Your task to perform on an android device: turn on the 12-hour format for clock Image 0: 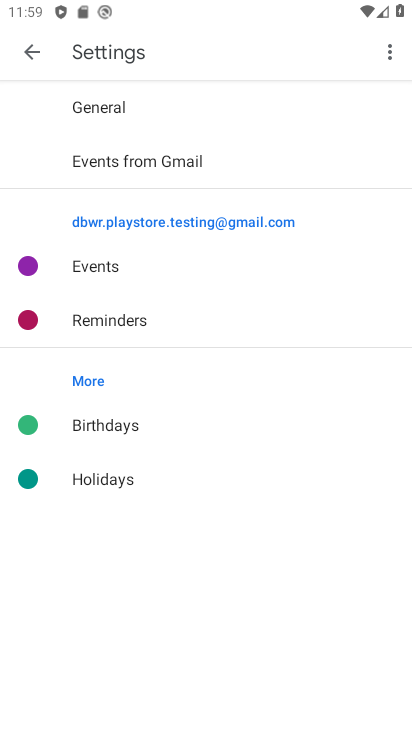
Step 0: press home button
Your task to perform on an android device: turn on the 12-hour format for clock Image 1: 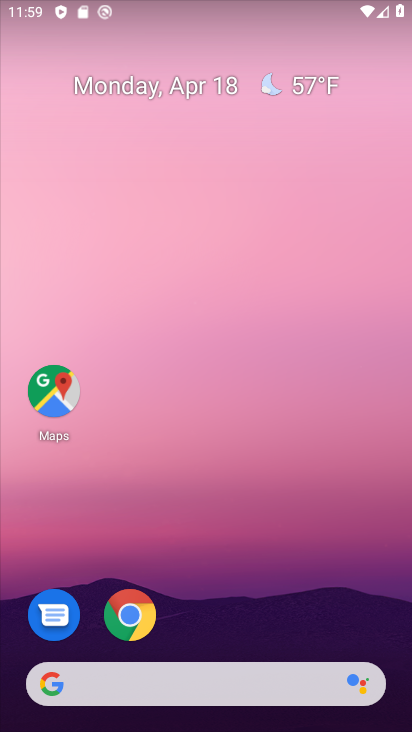
Step 1: drag from (226, 495) to (223, 198)
Your task to perform on an android device: turn on the 12-hour format for clock Image 2: 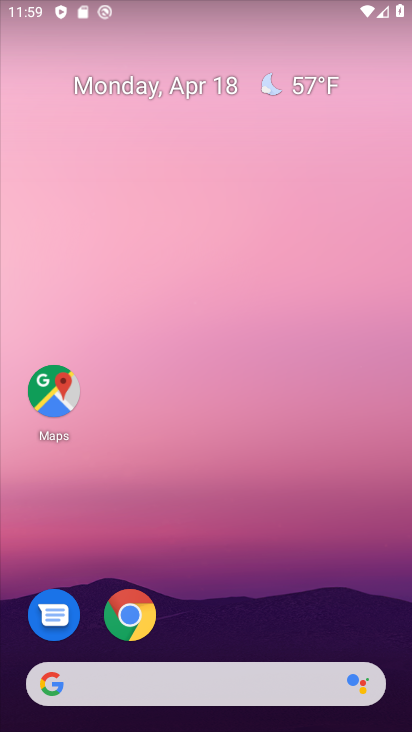
Step 2: drag from (245, 626) to (249, 187)
Your task to perform on an android device: turn on the 12-hour format for clock Image 3: 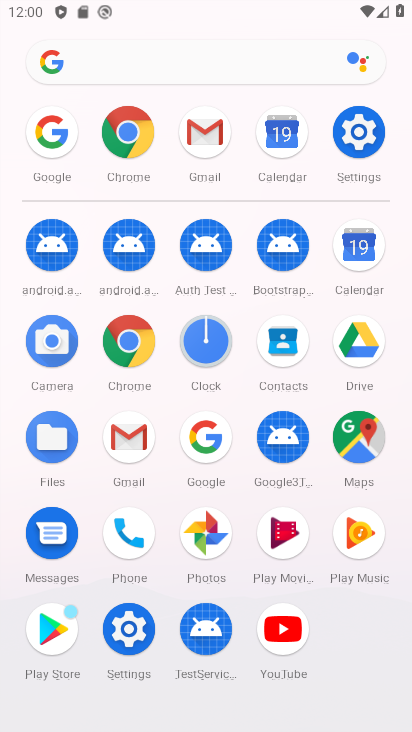
Step 3: click (195, 350)
Your task to perform on an android device: turn on the 12-hour format for clock Image 4: 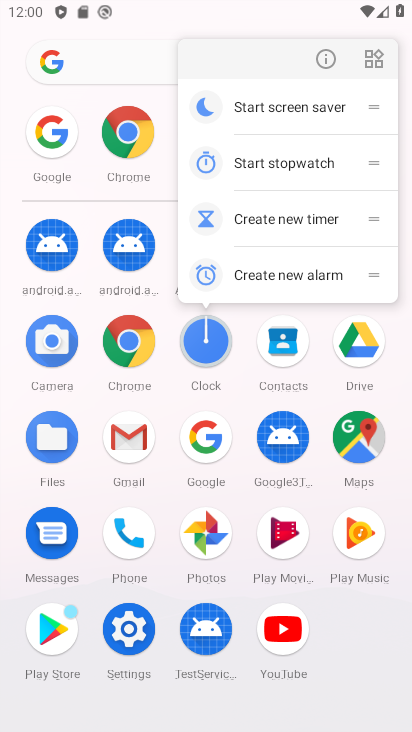
Step 4: click (218, 340)
Your task to perform on an android device: turn on the 12-hour format for clock Image 5: 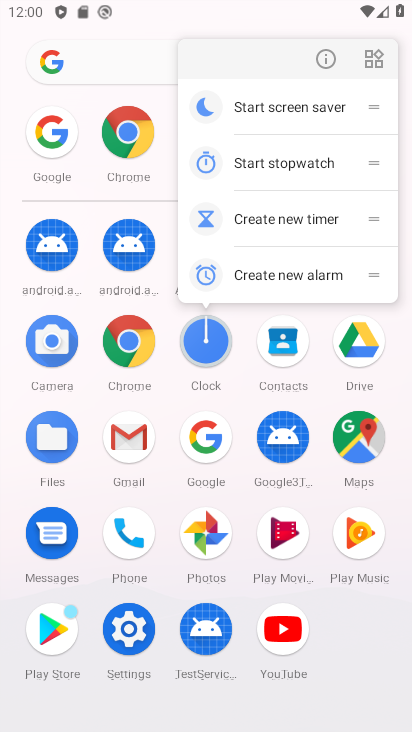
Step 5: click (218, 340)
Your task to perform on an android device: turn on the 12-hour format for clock Image 6: 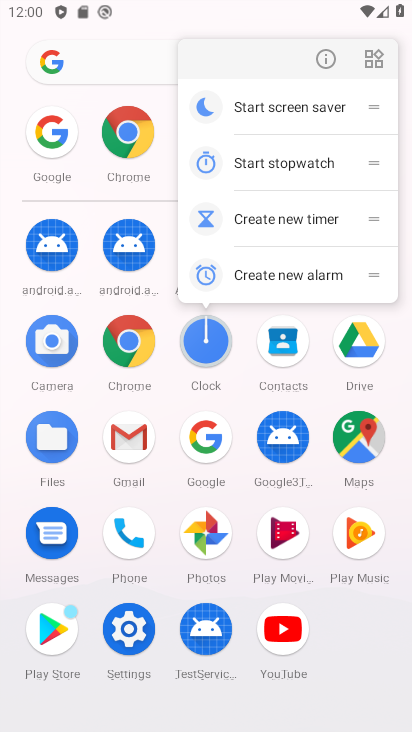
Step 6: click (218, 340)
Your task to perform on an android device: turn on the 12-hour format for clock Image 7: 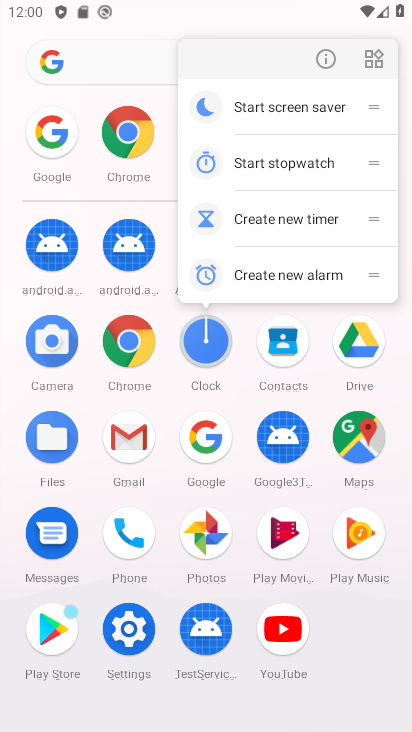
Step 7: click (217, 339)
Your task to perform on an android device: turn on the 12-hour format for clock Image 8: 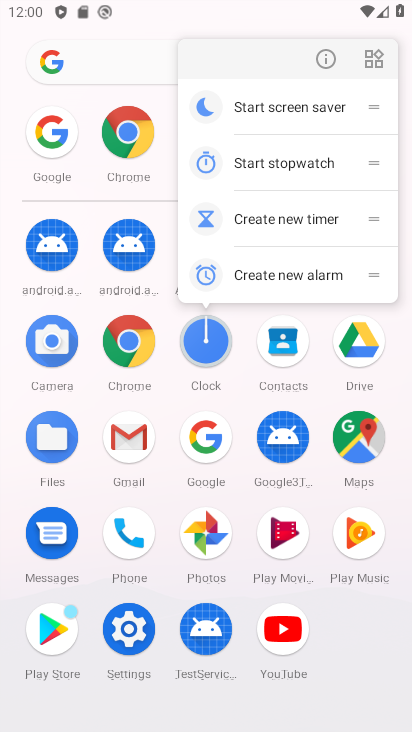
Step 8: click (213, 342)
Your task to perform on an android device: turn on the 12-hour format for clock Image 9: 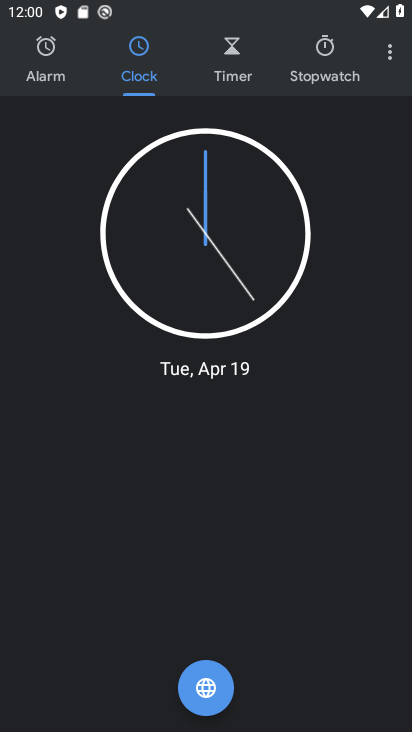
Step 9: click (390, 49)
Your task to perform on an android device: turn on the 12-hour format for clock Image 10: 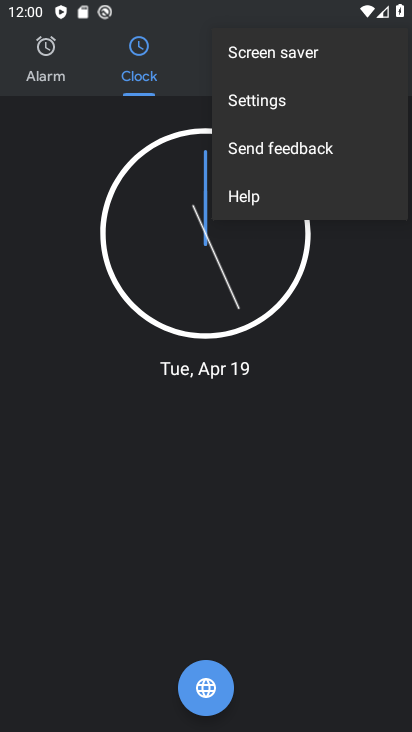
Step 10: click (303, 99)
Your task to perform on an android device: turn on the 12-hour format for clock Image 11: 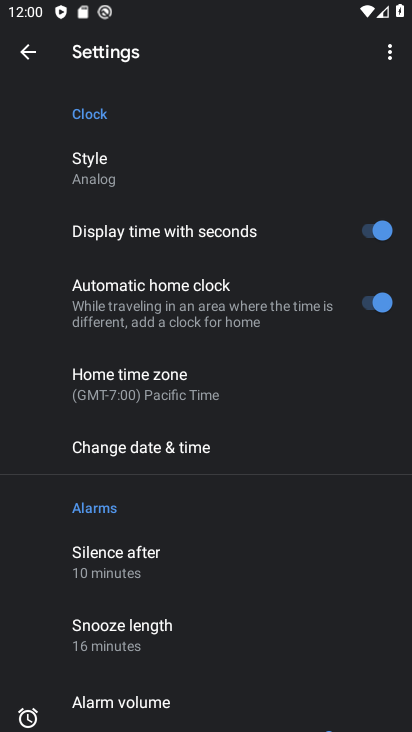
Step 11: click (194, 447)
Your task to perform on an android device: turn on the 12-hour format for clock Image 12: 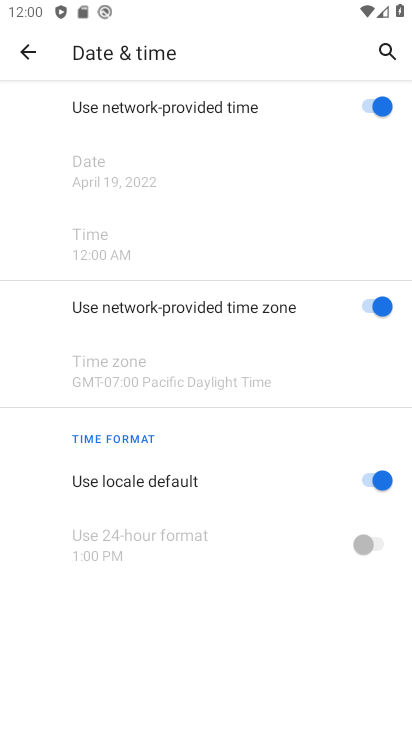
Step 12: task complete